Your task to perform on an android device: Search for Italian restaurants on Maps Image 0: 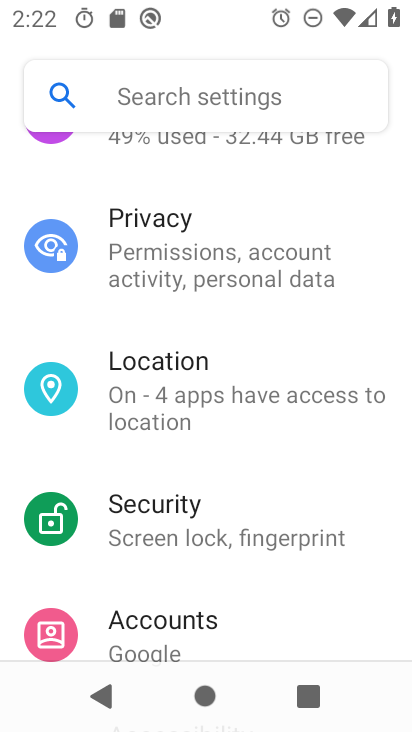
Step 0: drag from (339, 222) to (233, 632)
Your task to perform on an android device: Search for Italian restaurants on Maps Image 1: 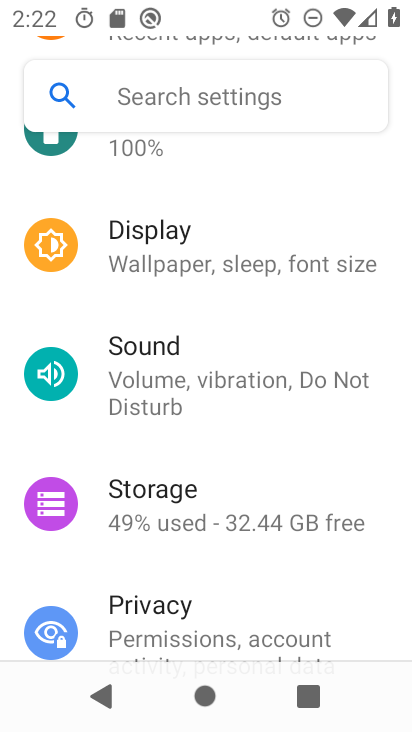
Step 1: press back button
Your task to perform on an android device: Search for Italian restaurants on Maps Image 2: 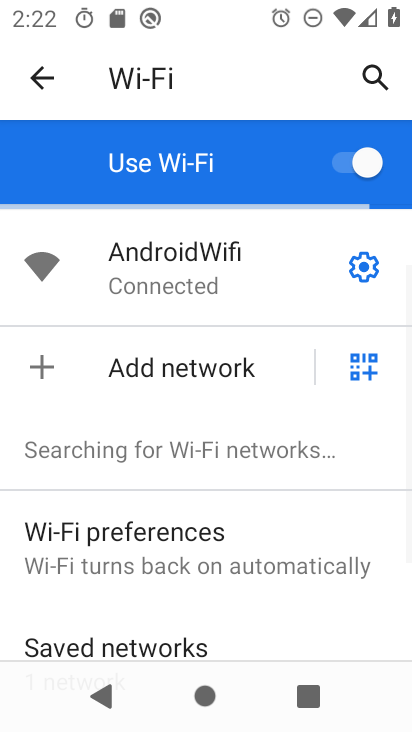
Step 2: press back button
Your task to perform on an android device: Search for Italian restaurants on Maps Image 3: 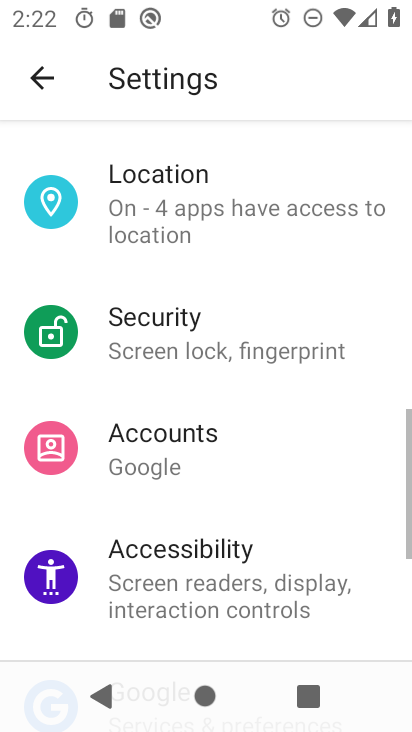
Step 3: press back button
Your task to perform on an android device: Search for Italian restaurants on Maps Image 4: 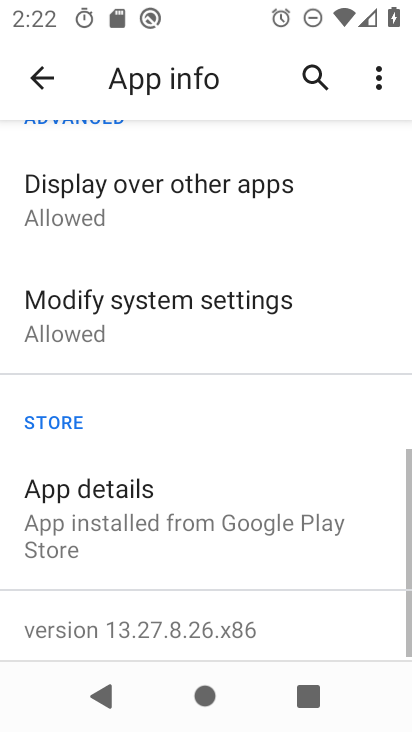
Step 4: press back button
Your task to perform on an android device: Search for Italian restaurants on Maps Image 5: 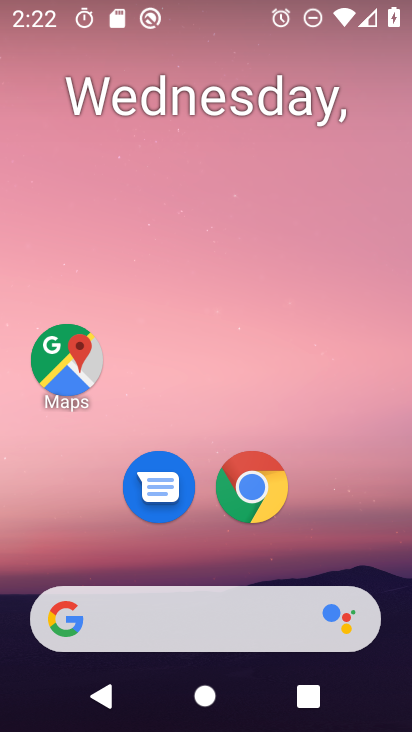
Step 5: click (49, 363)
Your task to perform on an android device: Search for Italian restaurants on Maps Image 6: 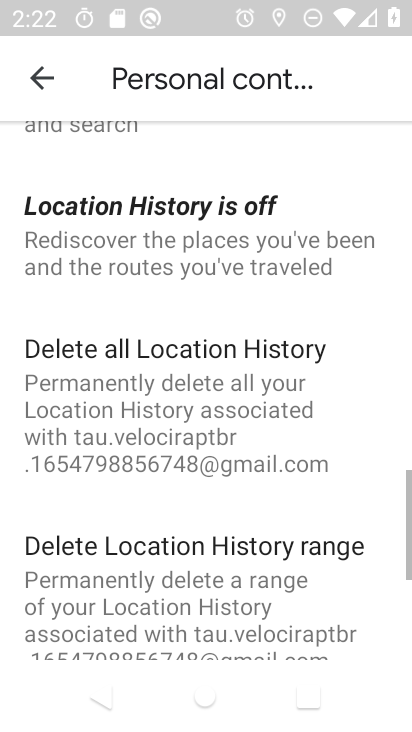
Step 6: click (64, 92)
Your task to perform on an android device: Search for Italian restaurants on Maps Image 7: 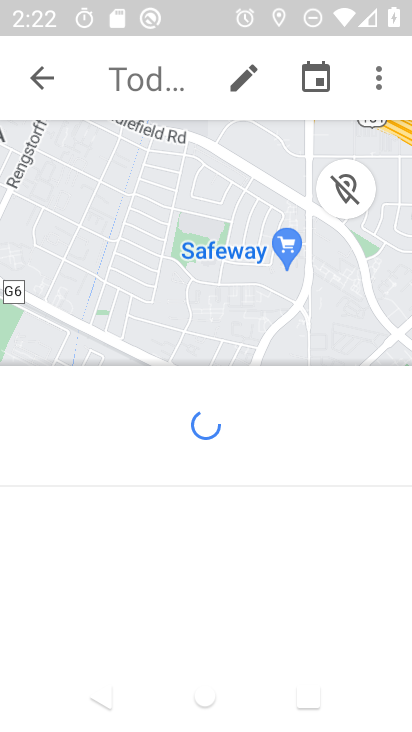
Step 7: click (51, 74)
Your task to perform on an android device: Search for Italian restaurants on Maps Image 8: 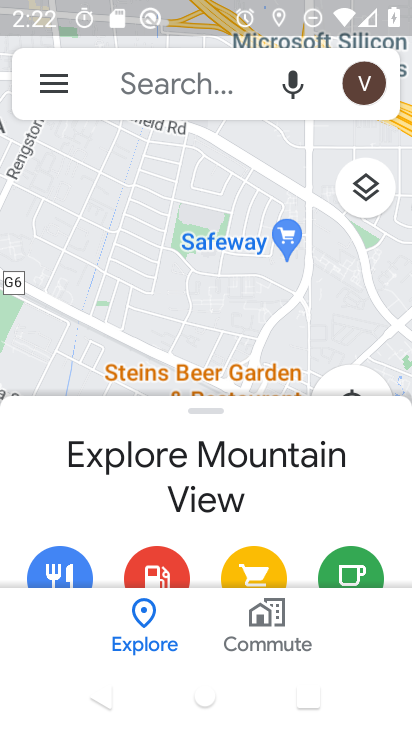
Step 8: click (168, 80)
Your task to perform on an android device: Search for Italian restaurants on Maps Image 9: 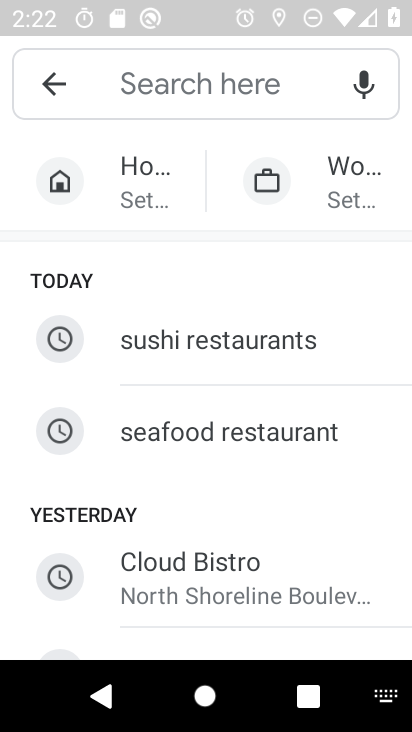
Step 9: drag from (222, 633) to (311, 7)
Your task to perform on an android device: Search for Italian restaurants on Maps Image 10: 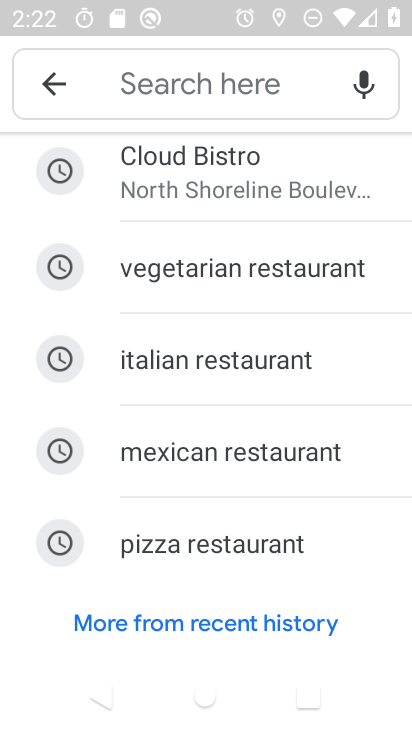
Step 10: click (207, 351)
Your task to perform on an android device: Search for Italian restaurants on Maps Image 11: 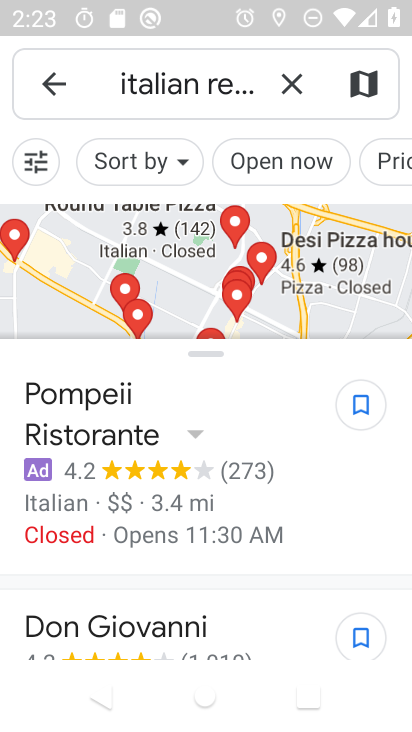
Step 11: task complete